Your task to perform on an android device: Clear all items from cart on bestbuy.com. Add alienware area 51 to the cart on bestbuy.com, then select checkout. Image 0: 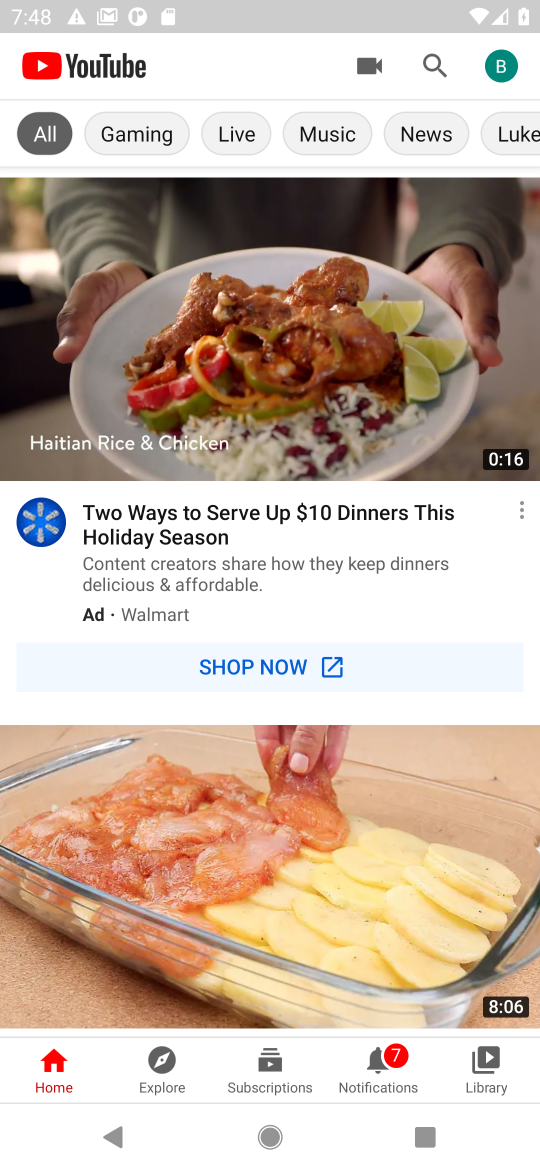
Step 0: press home button
Your task to perform on an android device: Clear all items from cart on bestbuy.com. Add alienware area 51 to the cart on bestbuy.com, then select checkout. Image 1: 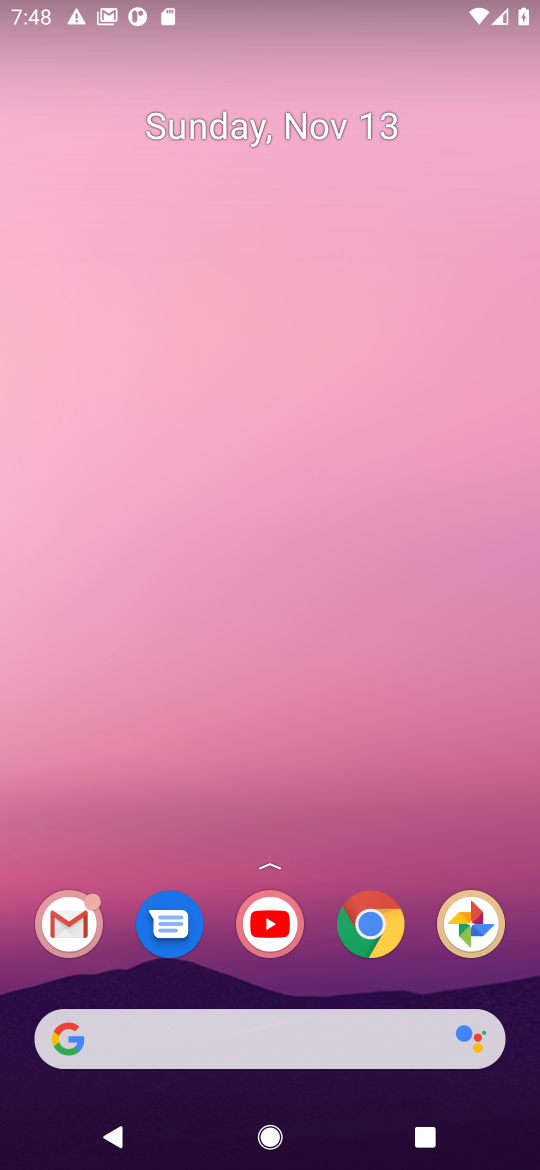
Step 1: click (372, 936)
Your task to perform on an android device: Clear all items from cart on bestbuy.com. Add alienware area 51 to the cart on bestbuy.com, then select checkout. Image 2: 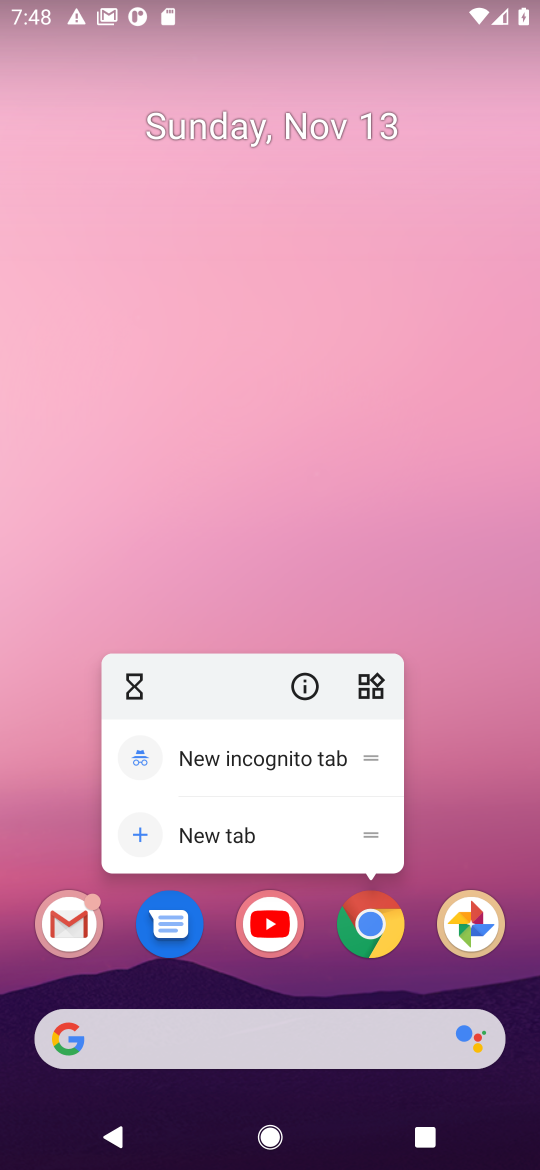
Step 2: click (373, 948)
Your task to perform on an android device: Clear all items from cart on bestbuy.com. Add alienware area 51 to the cart on bestbuy.com, then select checkout. Image 3: 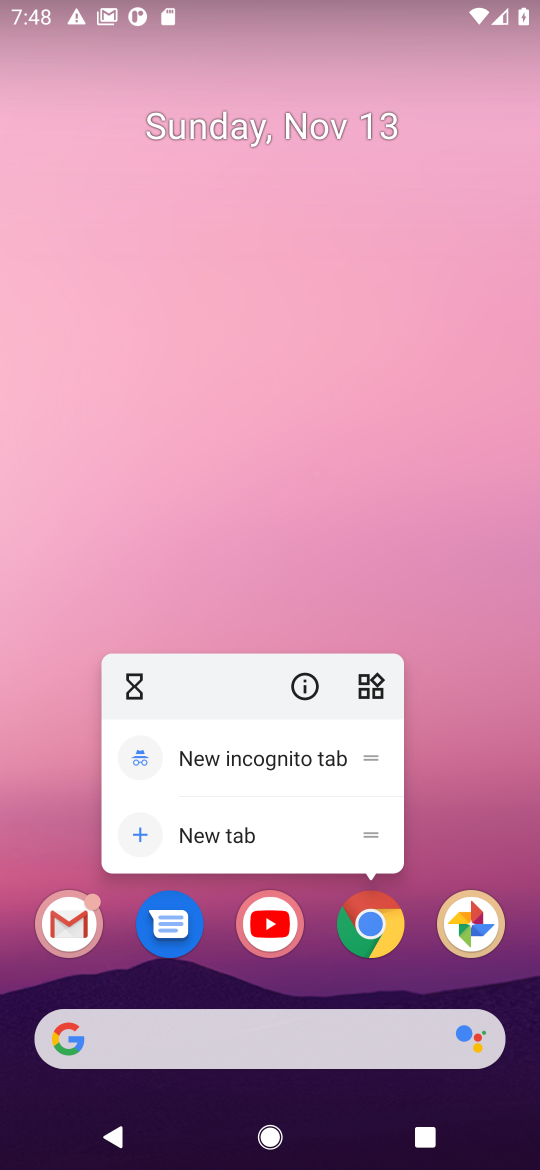
Step 3: click (373, 948)
Your task to perform on an android device: Clear all items from cart on bestbuy.com. Add alienware area 51 to the cart on bestbuy.com, then select checkout. Image 4: 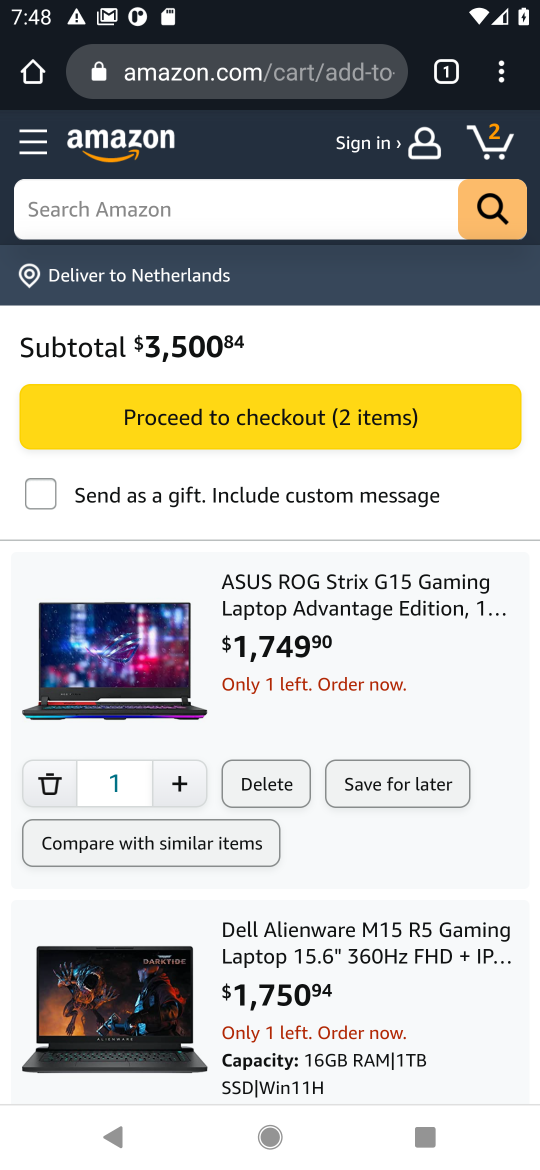
Step 4: click (362, 83)
Your task to perform on an android device: Clear all items from cart on bestbuy.com. Add alienware area 51 to the cart on bestbuy.com, then select checkout. Image 5: 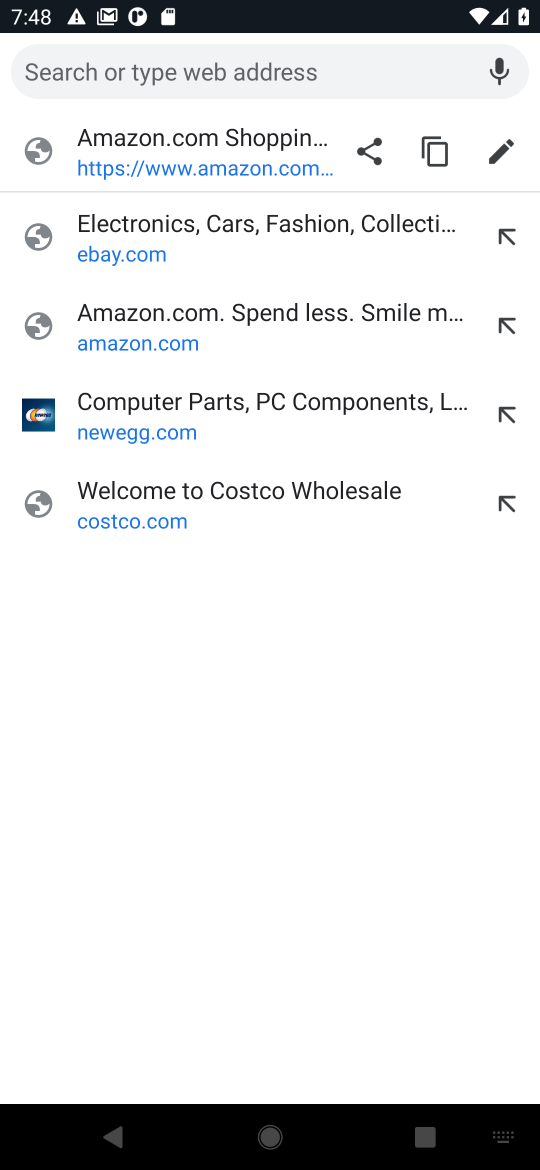
Step 5: type "bestbuy"
Your task to perform on an android device: Clear all items from cart on bestbuy.com. Add alienware area 51 to the cart on bestbuy.com, then select checkout. Image 6: 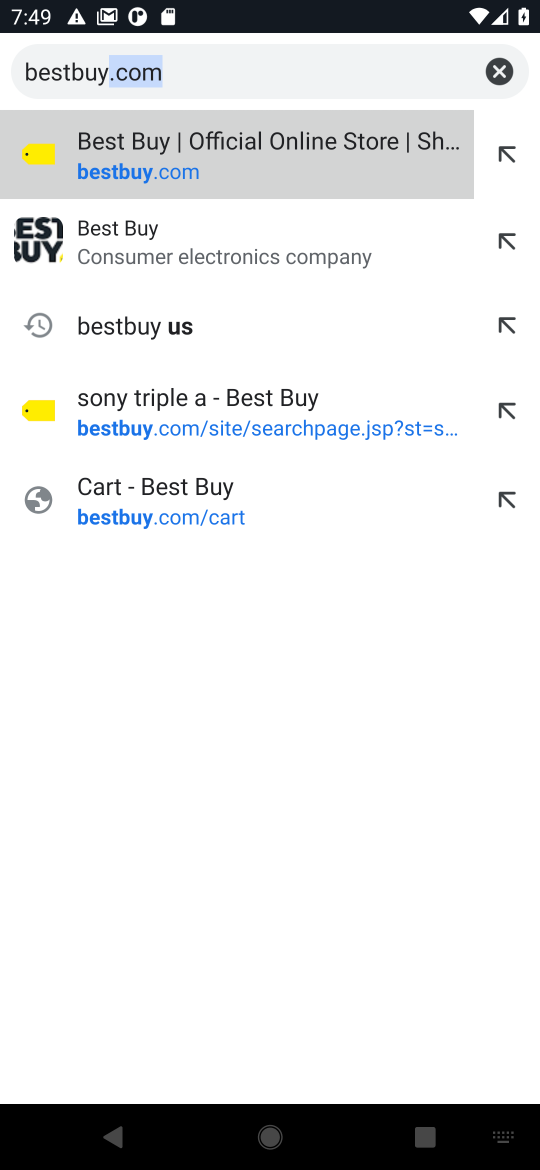
Step 6: click (128, 178)
Your task to perform on an android device: Clear all items from cart on bestbuy.com. Add alienware area 51 to the cart on bestbuy.com, then select checkout. Image 7: 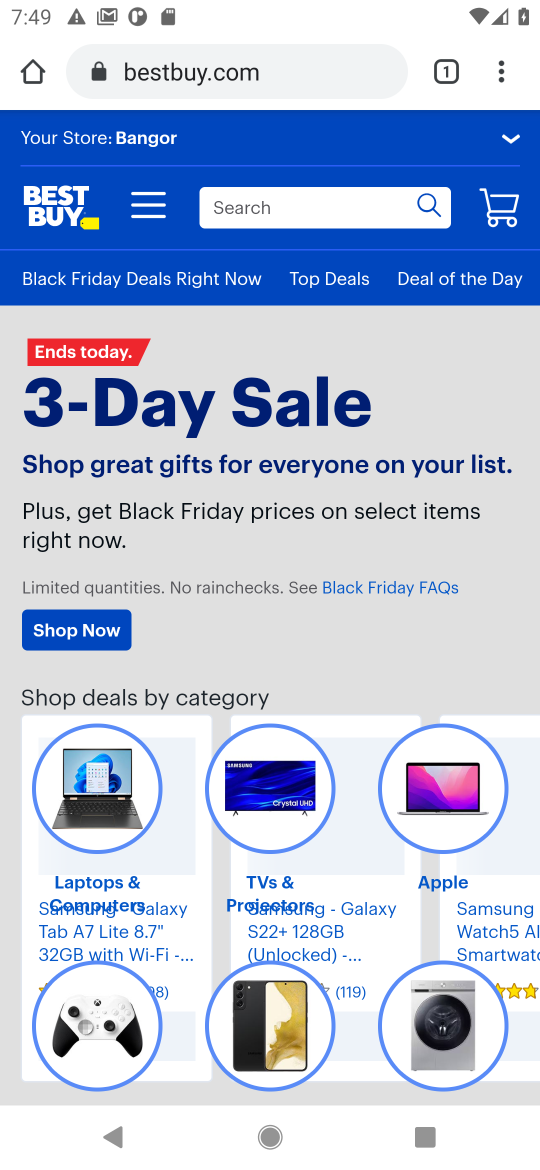
Step 7: click (505, 210)
Your task to perform on an android device: Clear all items from cart on bestbuy.com. Add alienware area 51 to the cart on bestbuy.com, then select checkout. Image 8: 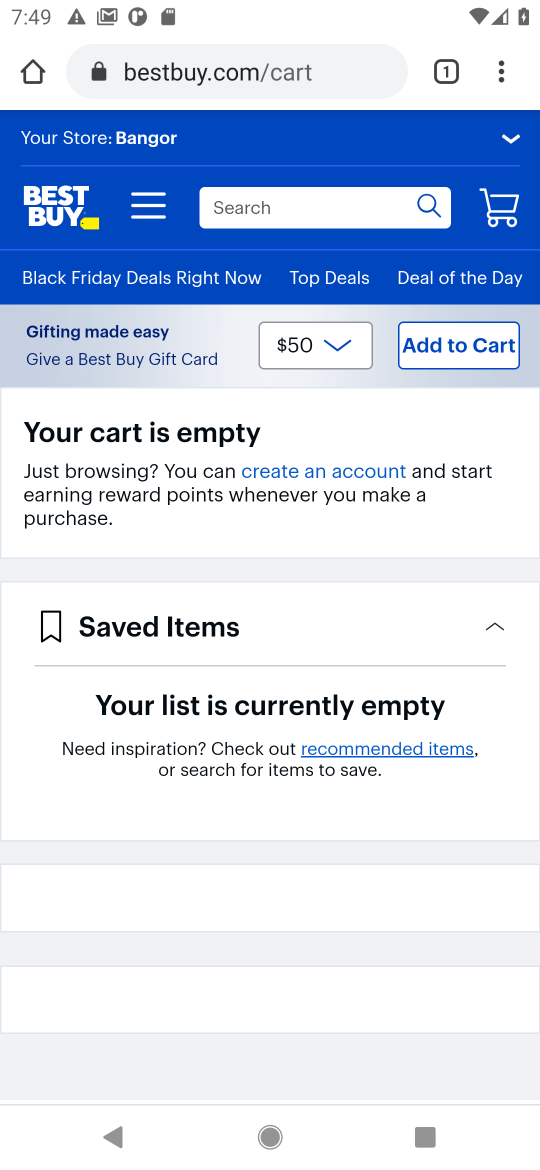
Step 8: click (333, 203)
Your task to perform on an android device: Clear all items from cart on bestbuy.com. Add alienware area 51 to the cart on bestbuy.com, then select checkout. Image 9: 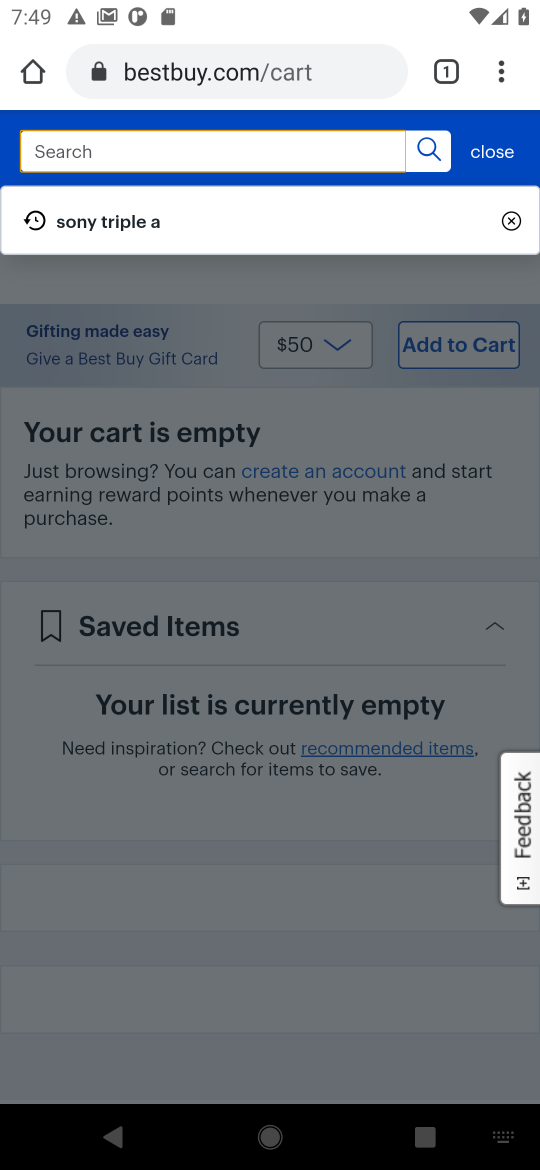
Step 9: type "alienware area 51 "
Your task to perform on an android device: Clear all items from cart on bestbuy.com. Add alienware area 51 to the cart on bestbuy.com, then select checkout. Image 10: 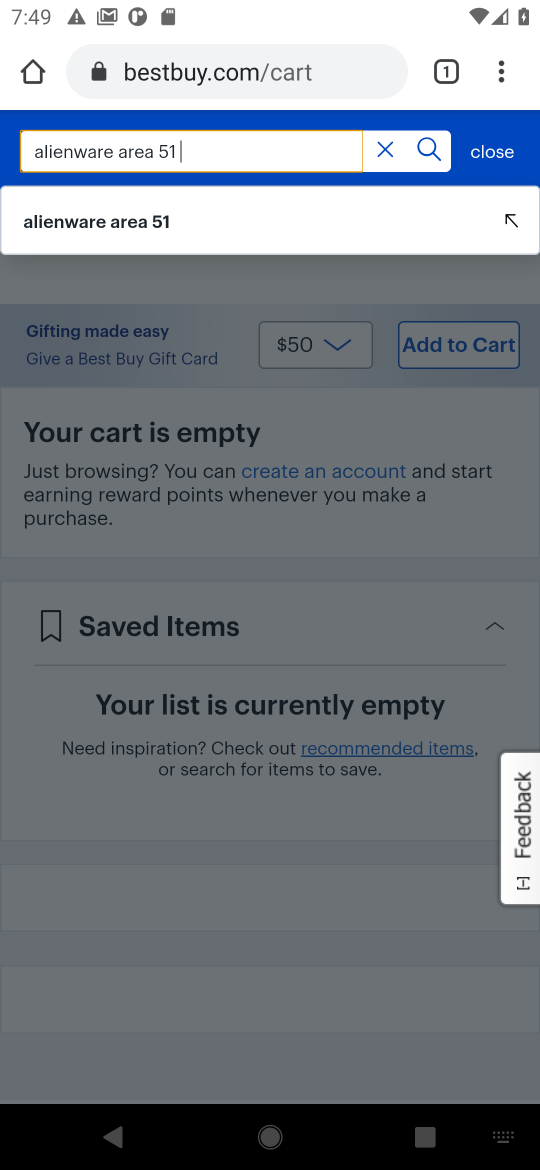
Step 10: click (110, 227)
Your task to perform on an android device: Clear all items from cart on bestbuy.com. Add alienware area 51 to the cart on bestbuy.com, then select checkout. Image 11: 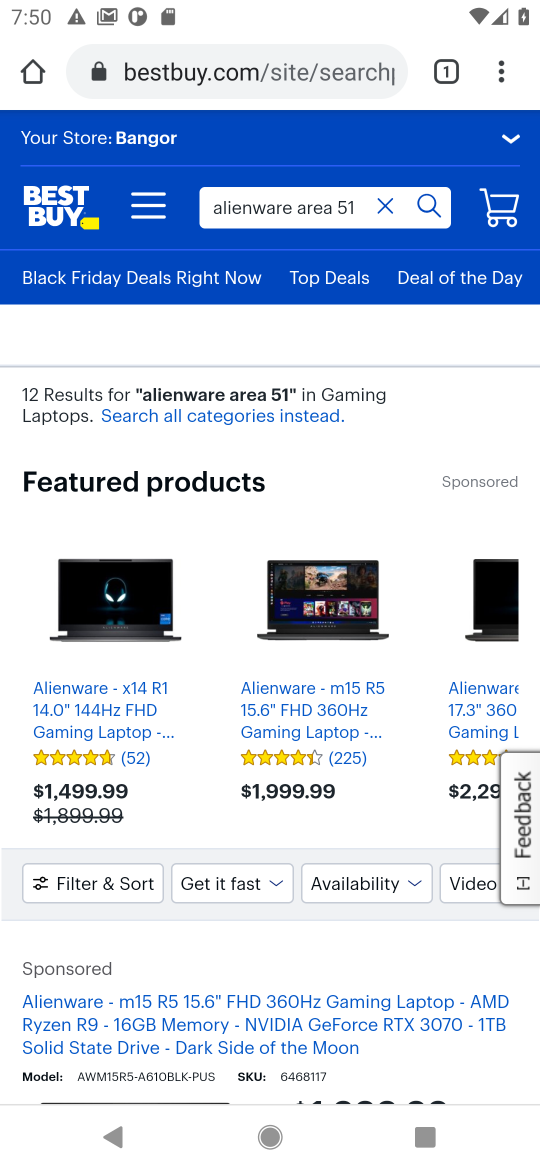
Step 11: task complete